Your task to perform on an android device: turn notification dots on Image 0: 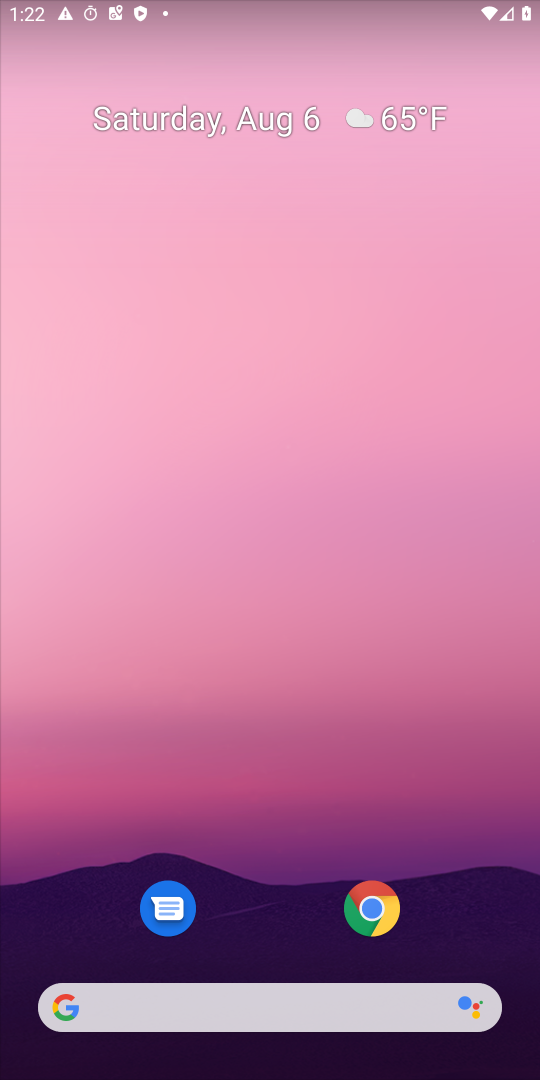
Step 0: drag from (291, 877) to (291, 20)
Your task to perform on an android device: turn notification dots on Image 1: 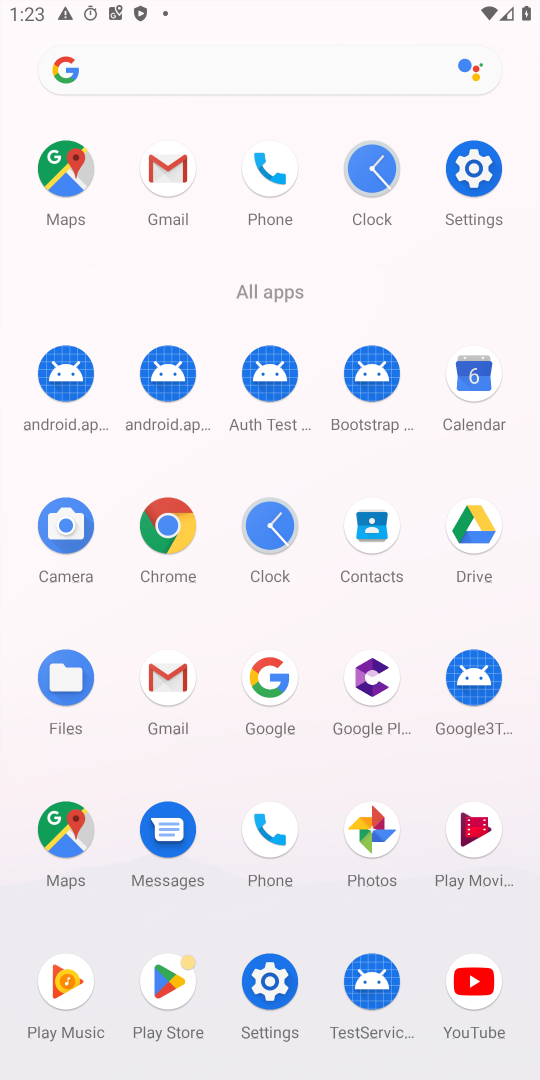
Step 1: click (260, 995)
Your task to perform on an android device: turn notification dots on Image 2: 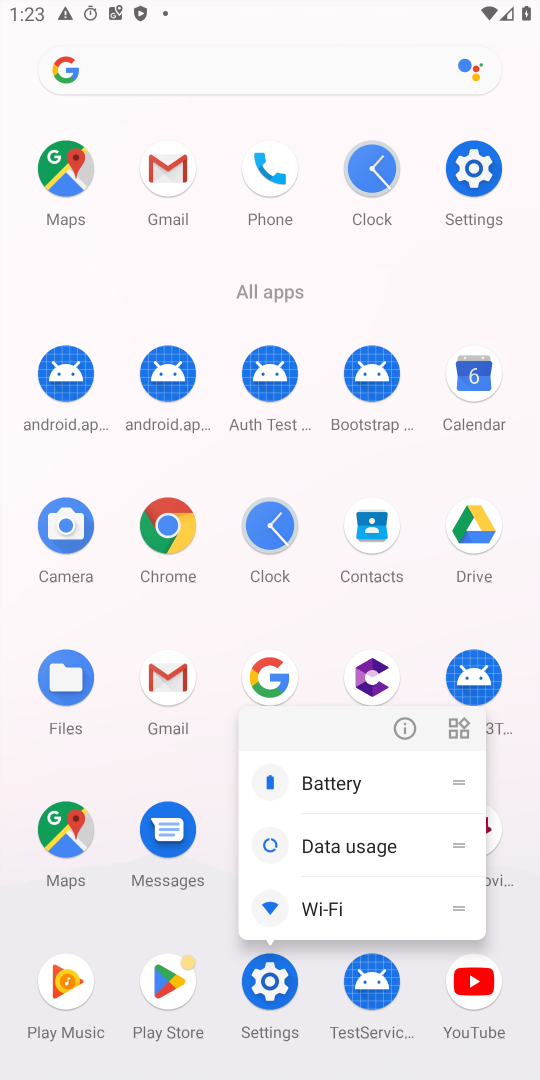
Step 2: click (260, 995)
Your task to perform on an android device: turn notification dots on Image 3: 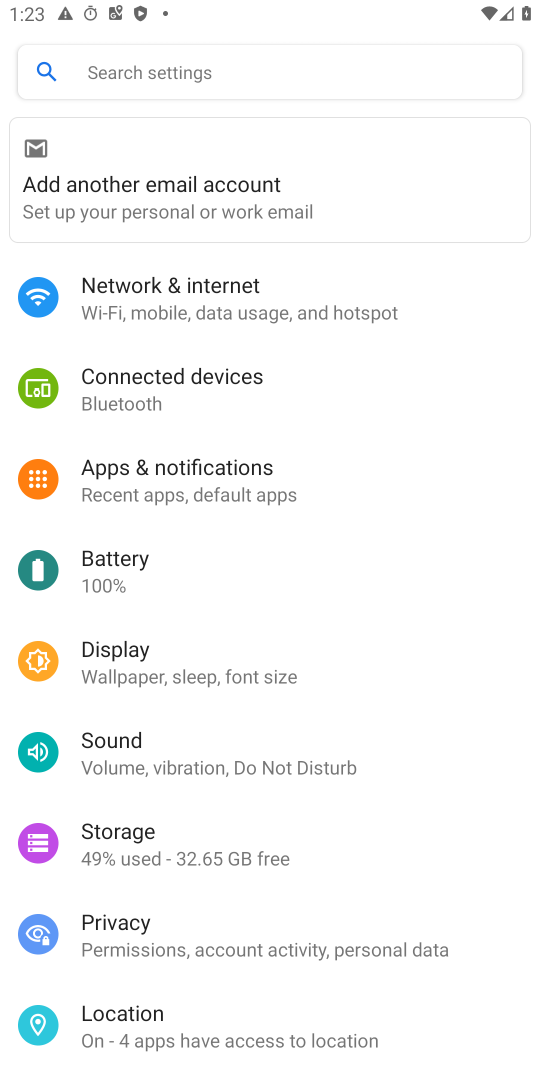
Step 3: click (190, 497)
Your task to perform on an android device: turn notification dots on Image 4: 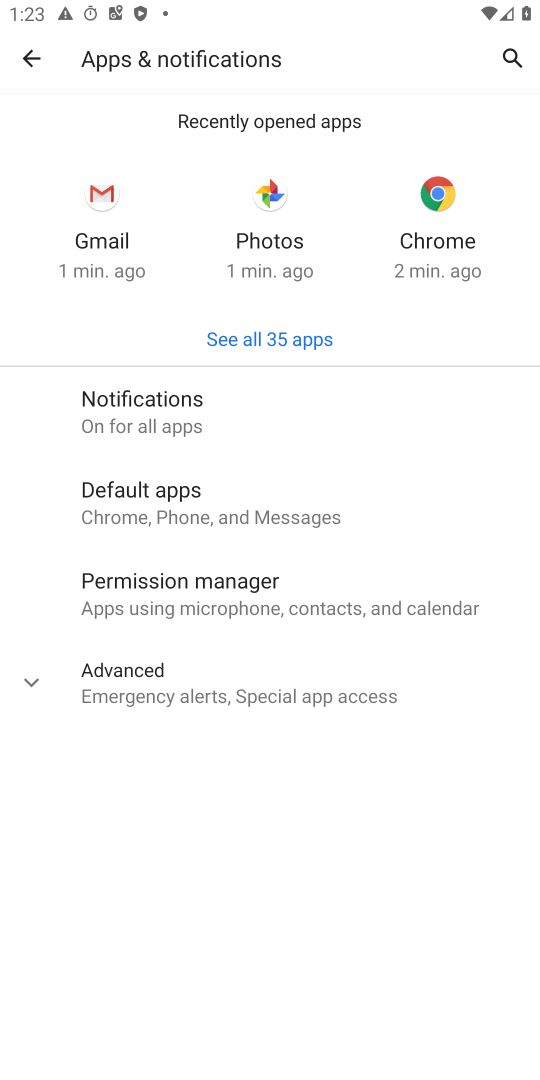
Step 4: click (167, 402)
Your task to perform on an android device: turn notification dots on Image 5: 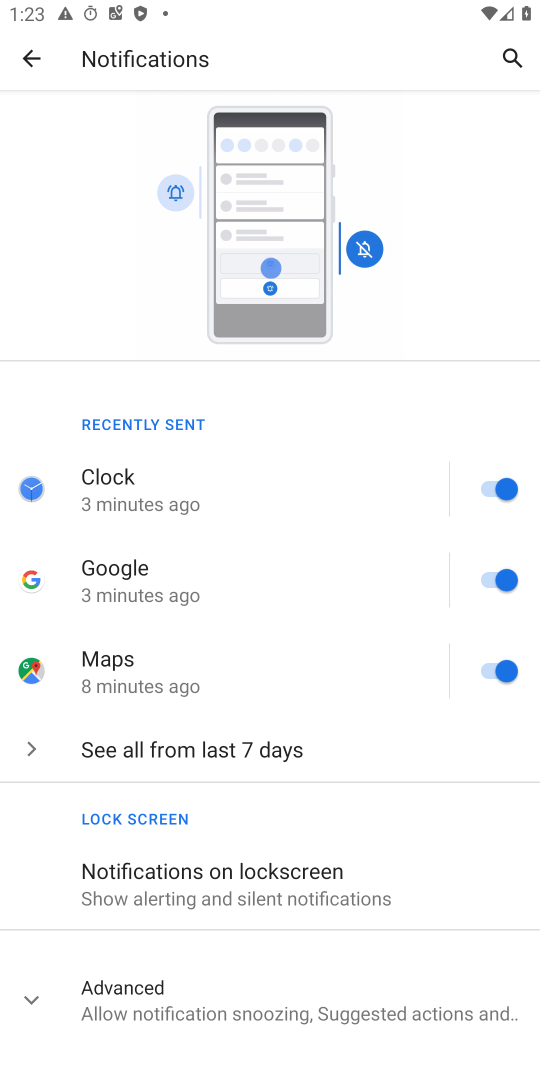
Step 5: click (187, 1002)
Your task to perform on an android device: turn notification dots on Image 6: 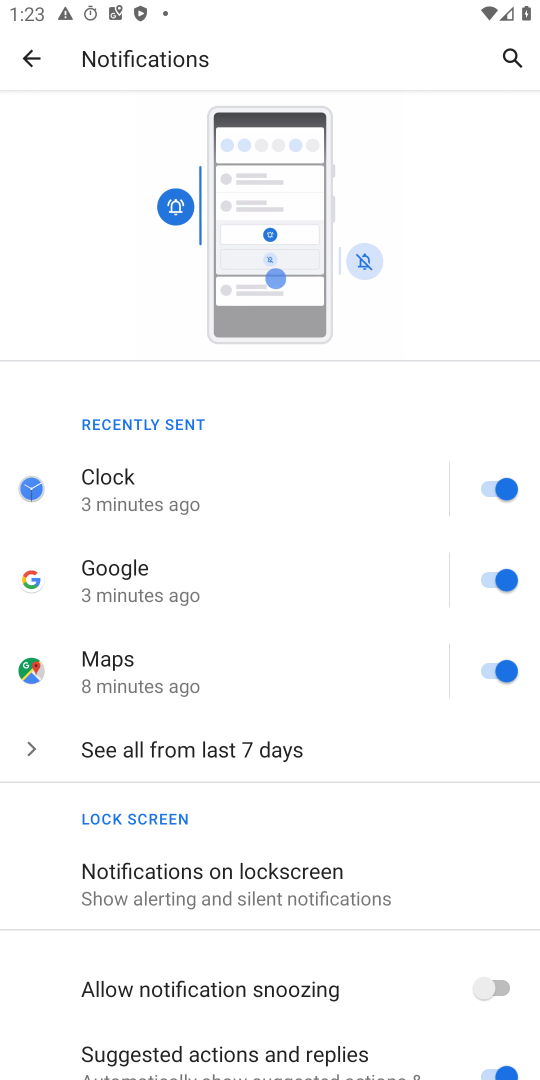
Step 6: task complete